Your task to perform on an android device: snooze an email in the gmail app Image 0: 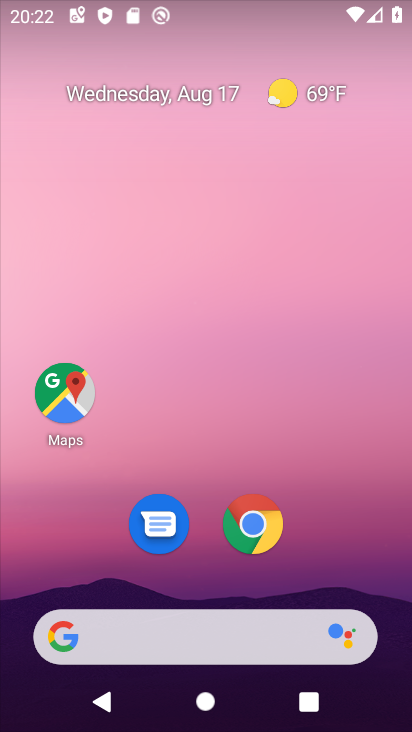
Step 0: drag from (326, 532) to (309, 29)
Your task to perform on an android device: snooze an email in the gmail app Image 1: 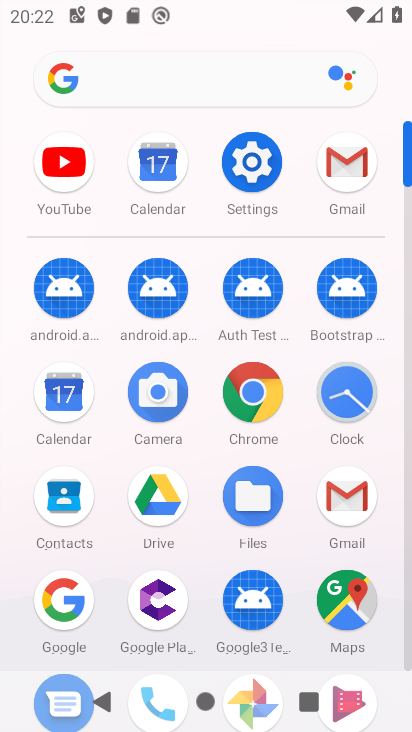
Step 1: click (355, 174)
Your task to perform on an android device: snooze an email in the gmail app Image 2: 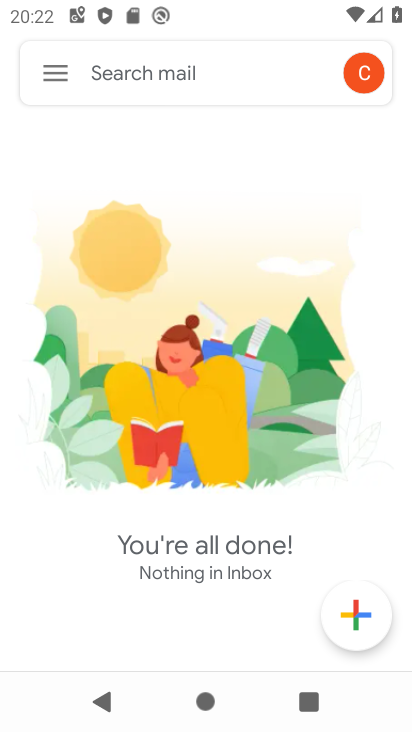
Step 2: click (56, 76)
Your task to perform on an android device: snooze an email in the gmail app Image 3: 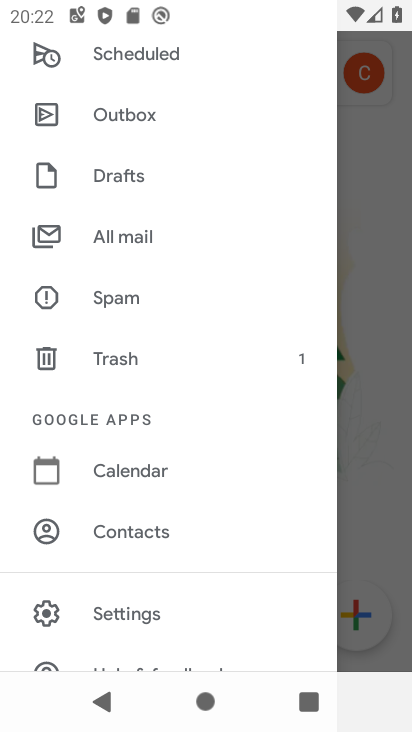
Step 3: click (133, 230)
Your task to perform on an android device: snooze an email in the gmail app Image 4: 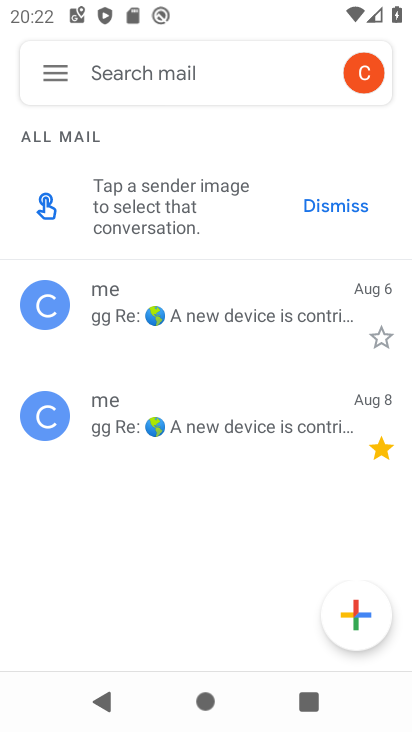
Step 4: click (192, 307)
Your task to perform on an android device: snooze an email in the gmail app Image 5: 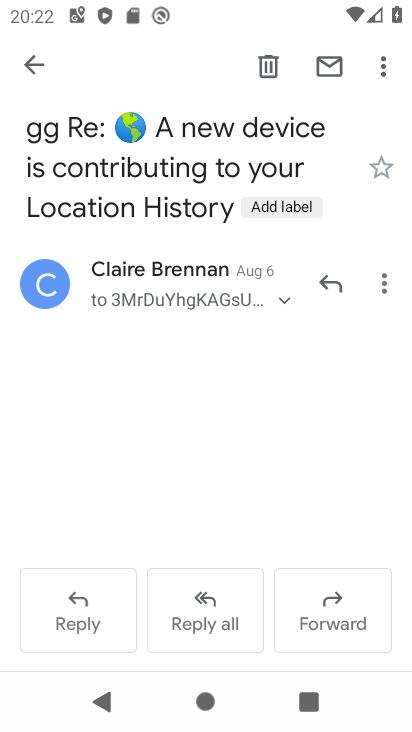
Step 5: click (383, 57)
Your task to perform on an android device: snooze an email in the gmail app Image 6: 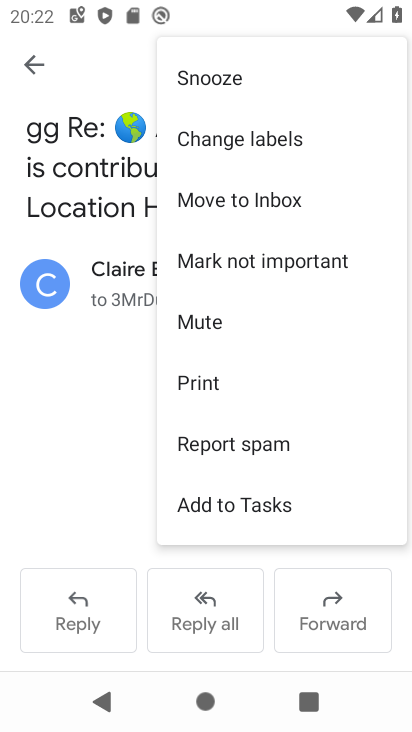
Step 6: click (281, 66)
Your task to perform on an android device: snooze an email in the gmail app Image 7: 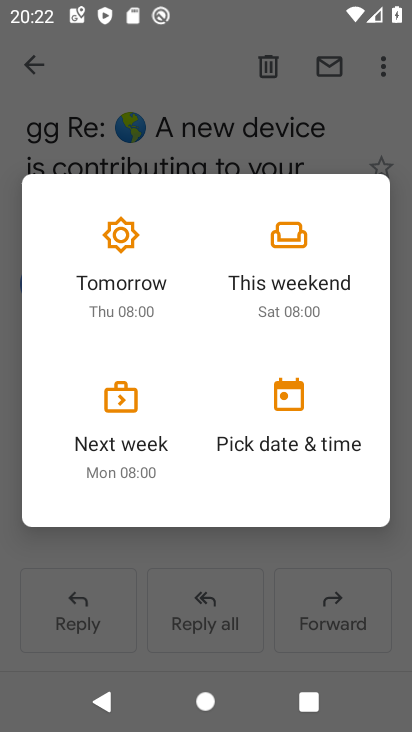
Step 7: click (135, 255)
Your task to perform on an android device: snooze an email in the gmail app Image 8: 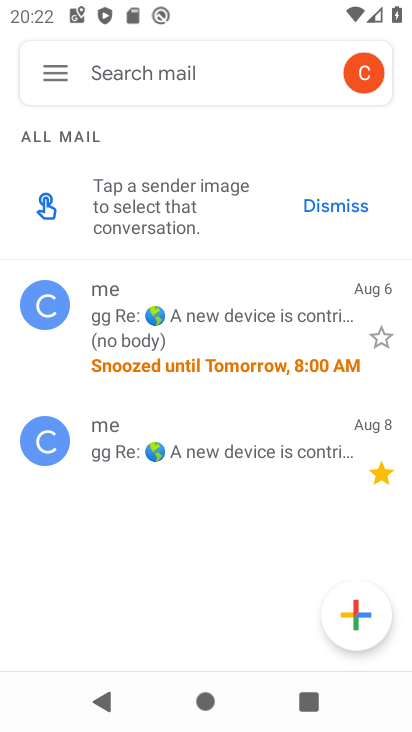
Step 8: task complete